Your task to perform on an android device: turn pop-ups on in chrome Image 0: 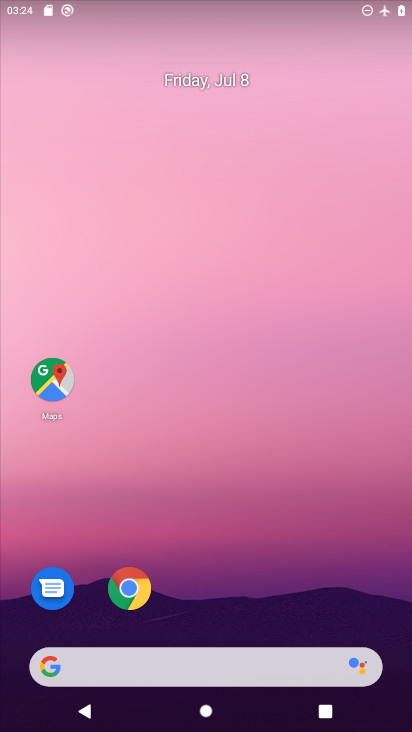
Step 0: click (128, 591)
Your task to perform on an android device: turn pop-ups on in chrome Image 1: 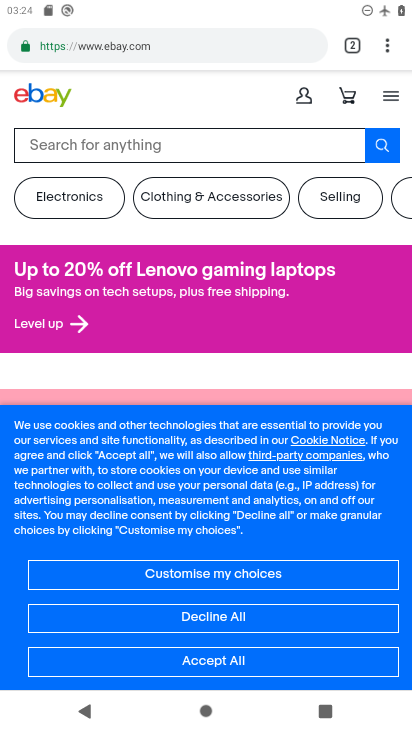
Step 1: click (389, 47)
Your task to perform on an android device: turn pop-ups on in chrome Image 2: 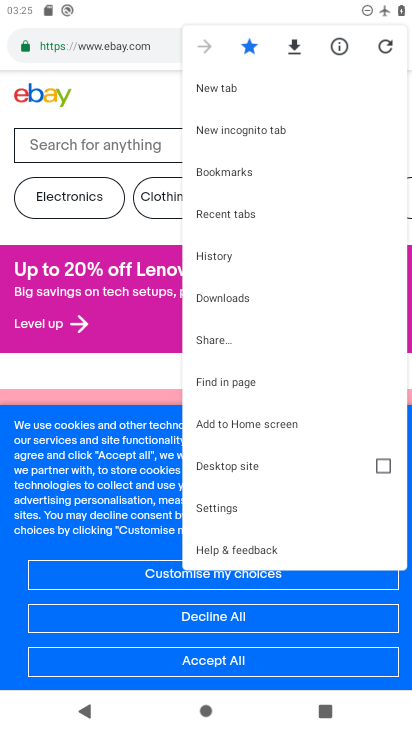
Step 2: click (221, 505)
Your task to perform on an android device: turn pop-ups on in chrome Image 3: 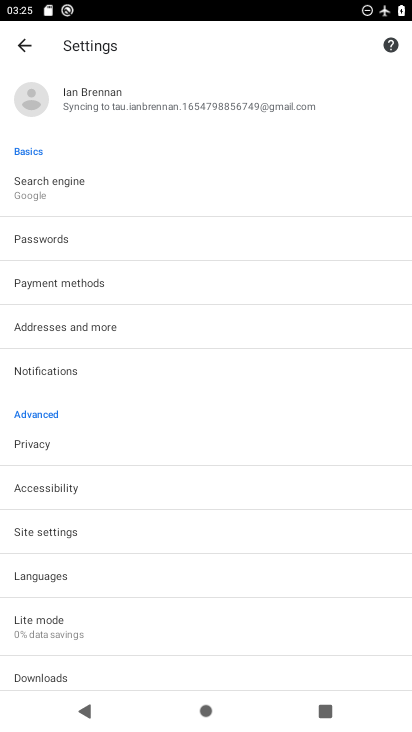
Step 3: click (54, 529)
Your task to perform on an android device: turn pop-ups on in chrome Image 4: 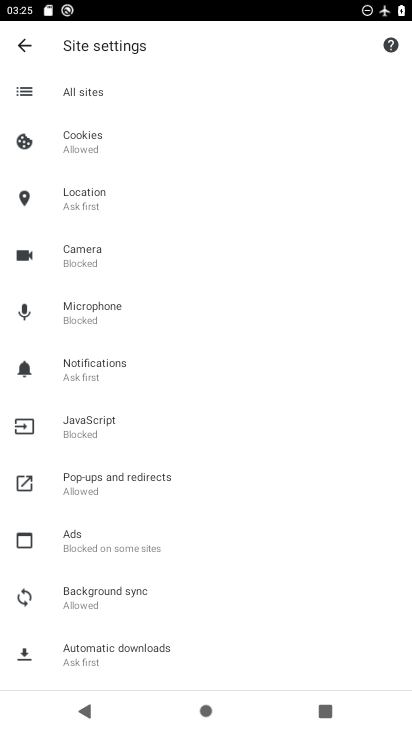
Step 4: click (137, 486)
Your task to perform on an android device: turn pop-ups on in chrome Image 5: 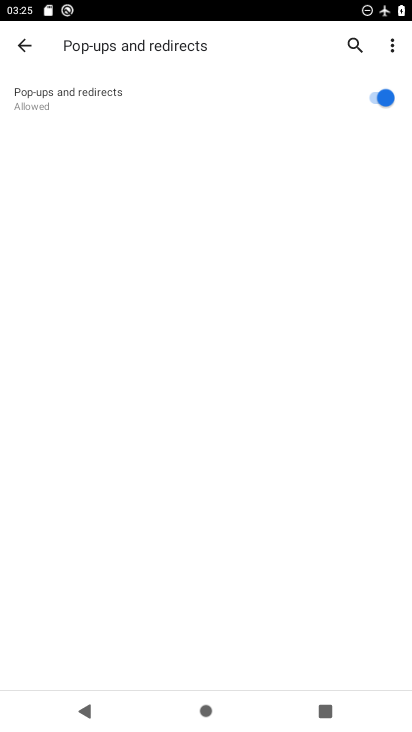
Step 5: click (375, 100)
Your task to perform on an android device: turn pop-ups on in chrome Image 6: 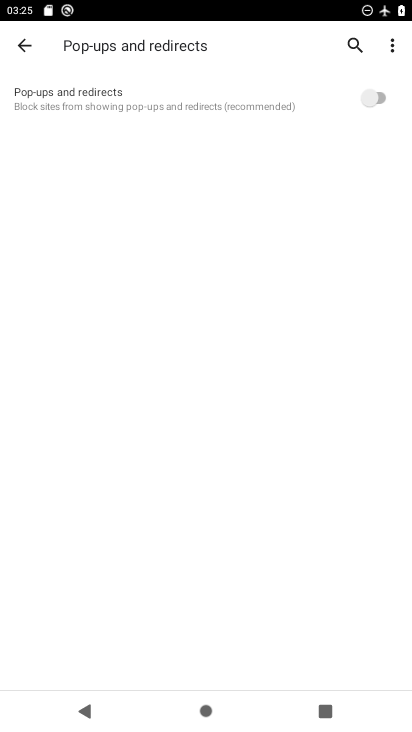
Step 6: task complete